Your task to perform on an android device: turn off location Image 0: 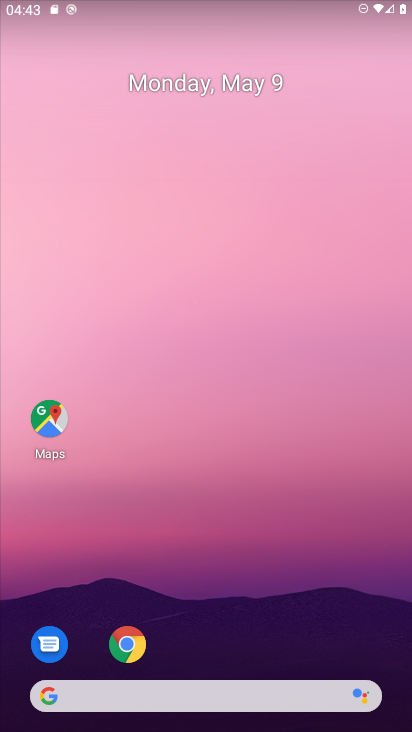
Step 0: drag from (269, 598) to (230, 158)
Your task to perform on an android device: turn off location Image 1: 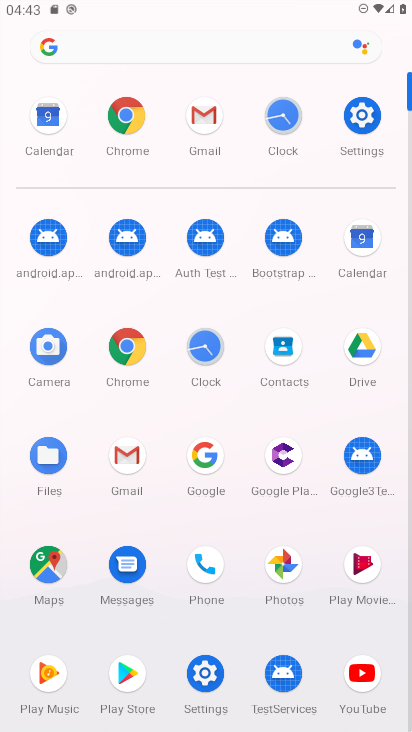
Step 1: click (355, 123)
Your task to perform on an android device: turn off location Image 2: 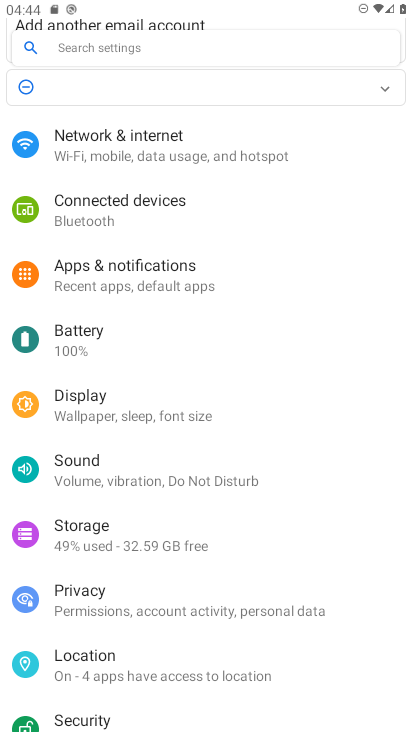
Step 2: click (105, 655)
Your task to perform on an android device: turn off location Image 3: 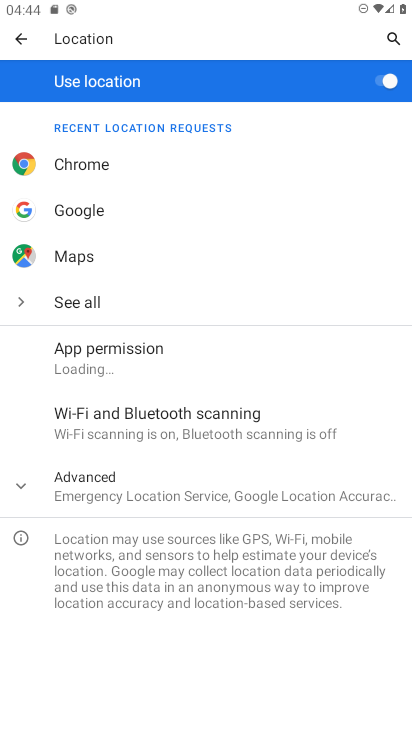
Step 3: click (384, 82)
Your task to perform on an android device: turn off location Image 4: 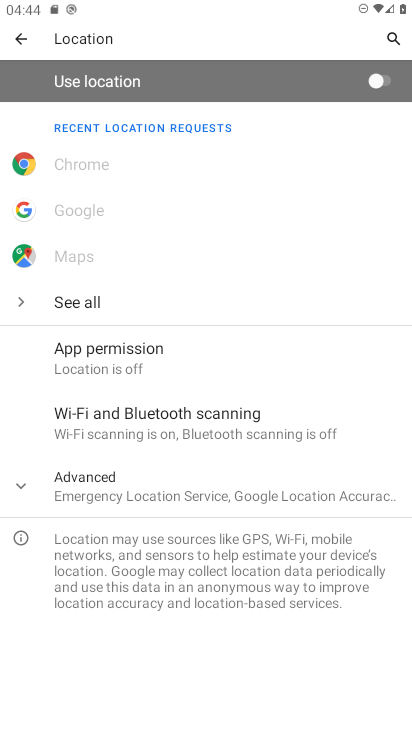
Step 4: task complete